Your task to perform on an android device: add a label to a message in the gmail app Image 0: 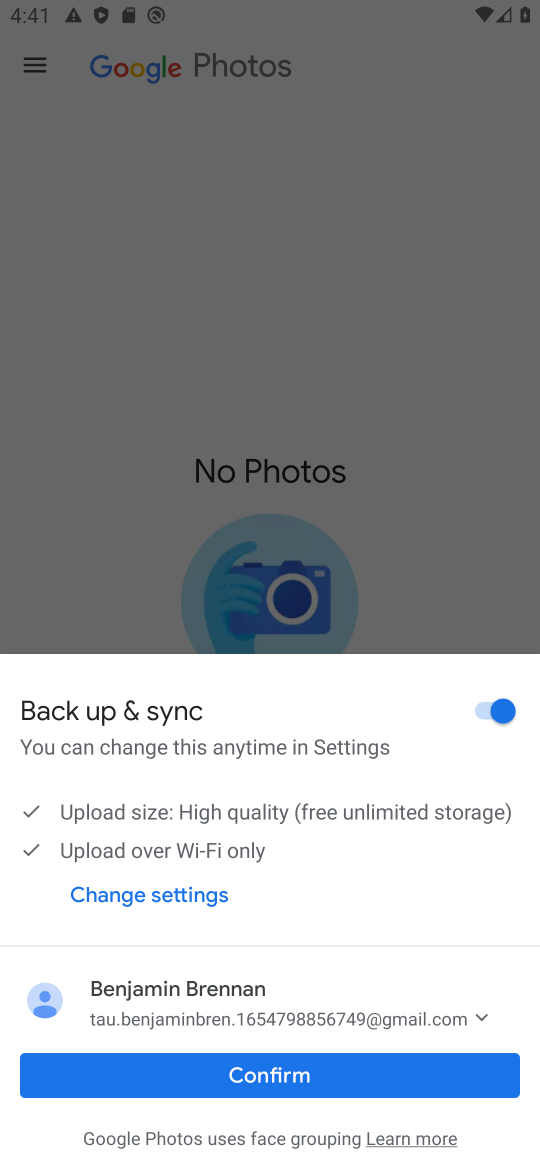
Step 0: click (306, 1075)
Your task to perform on an android device: add a label to a message in the gmail app Image 1: 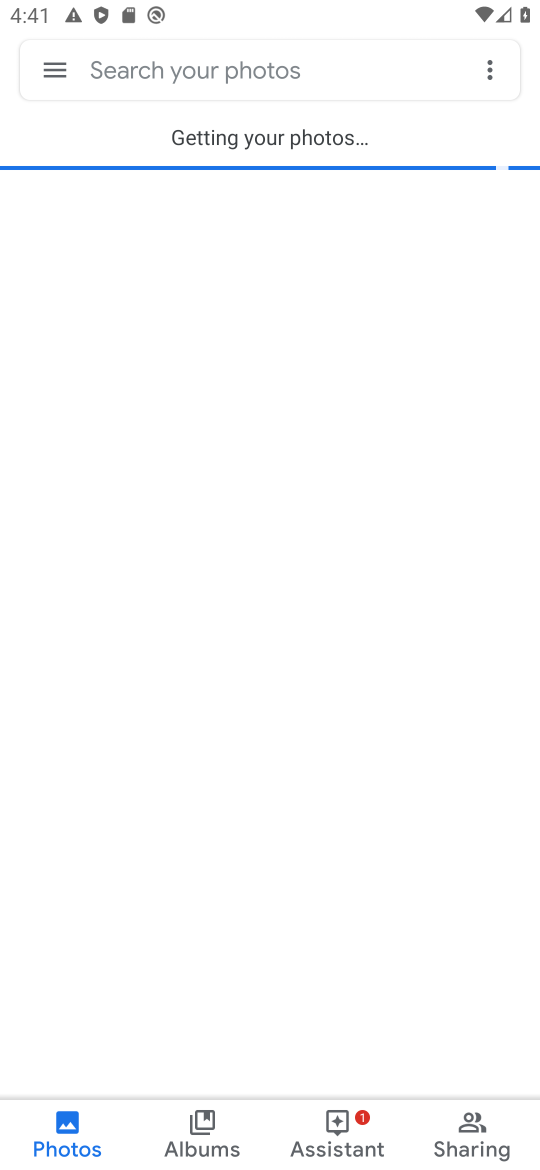
Step 1: press home button
Your task to perform on an android device: add a label to a message in the gmail app Image 2: 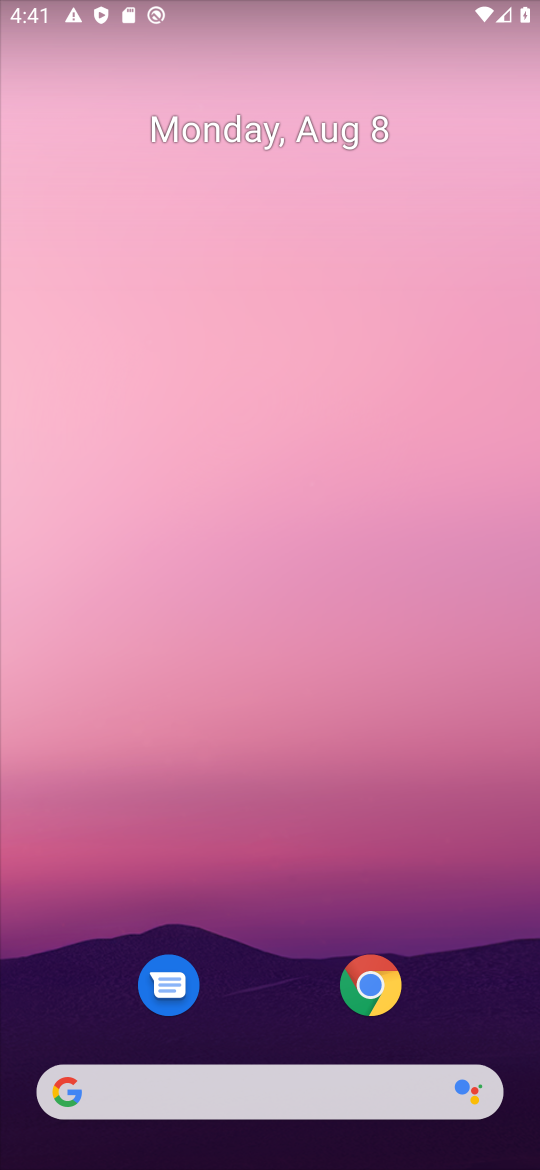
Step 2: drag from (289, 887) to (233, 173)
Your task to perform on an android device: add a label to a message in the gmail app Image 3: 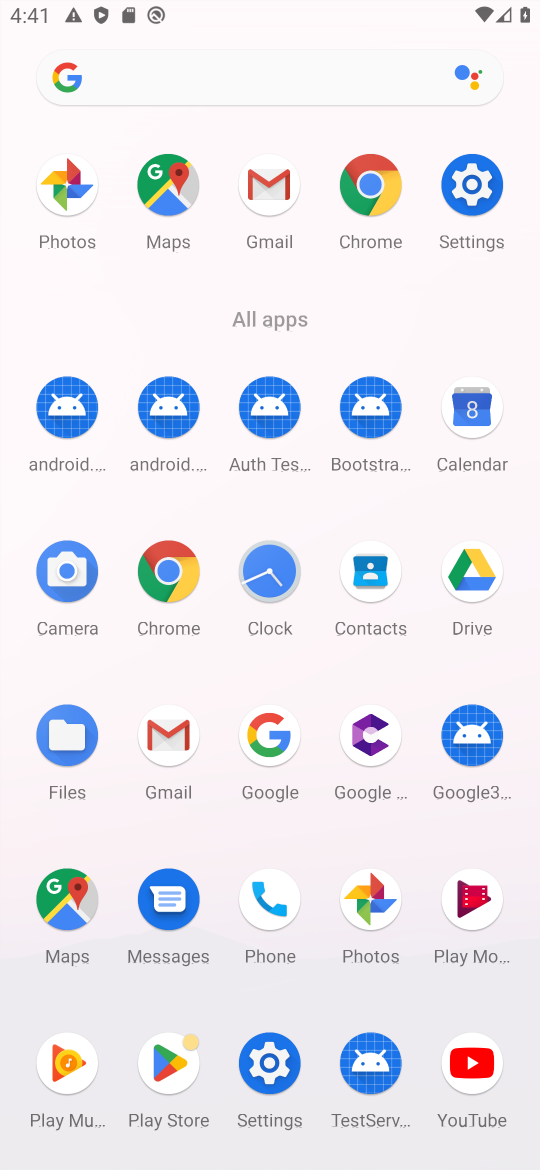
Step 3: click (168, 725)
Your task to perform on an android device: add a label to a message in the gmail app Image 4: 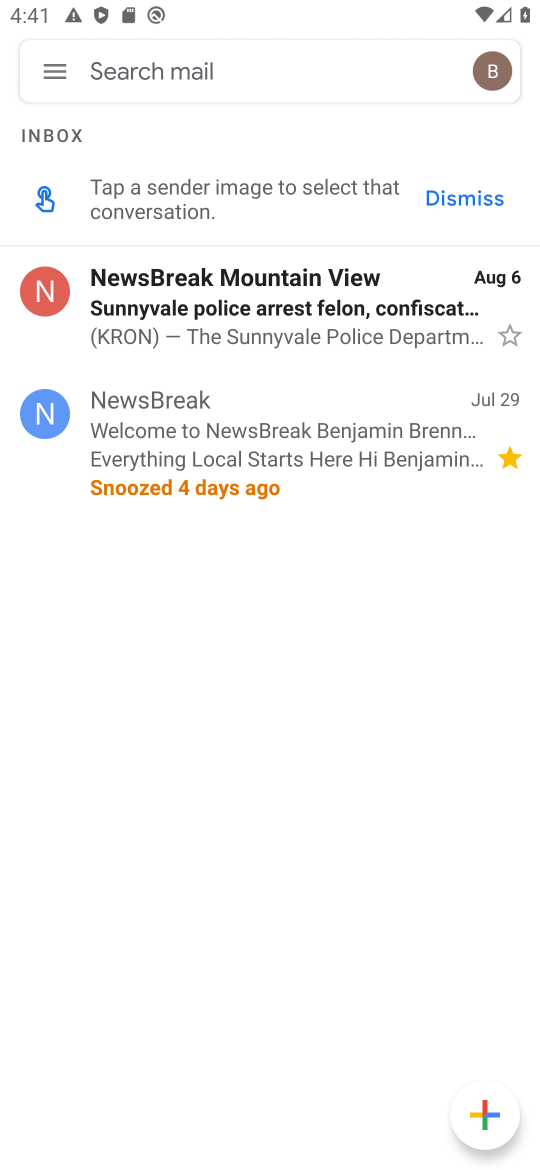
Step 4: task complete